Your task to perform on an android device: open chrome privacy settings Image 0: 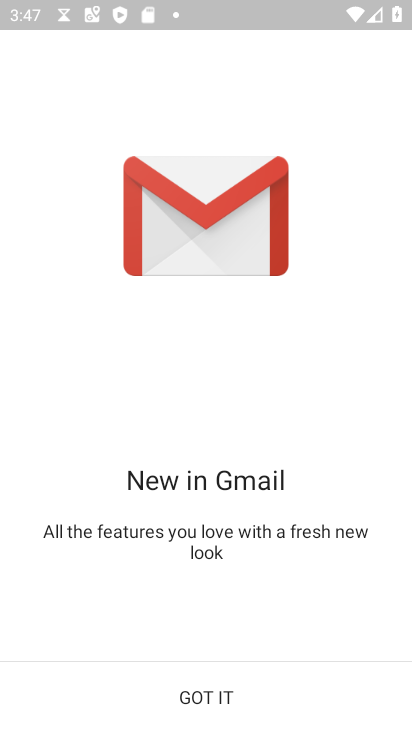
Step 0: click (211, 699)
Your task to perform on an android device: open chrome privacy settings Image 1: 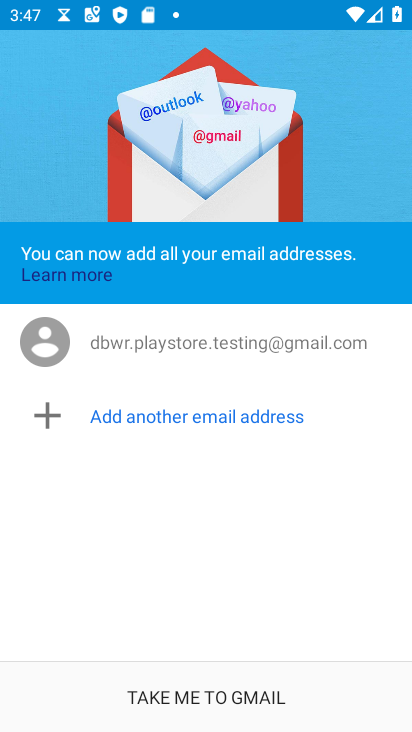
Step 1: press home button
Your task to perform on an android device: open chrome privacy settings Image 2: 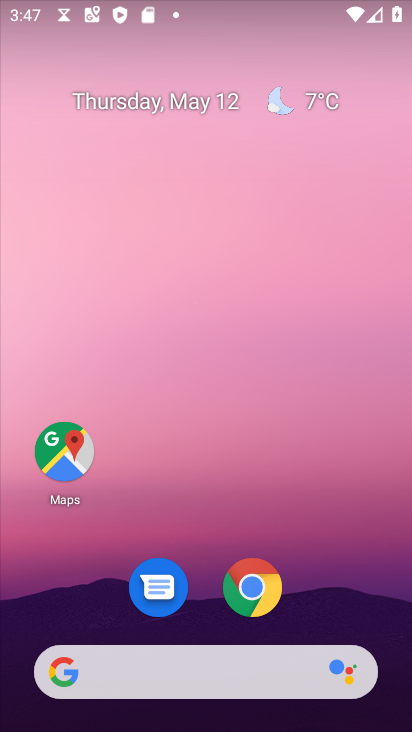
Step 2: click (263, 604)
Your task to perform on an android device: open chrome privacy settings Image 3: 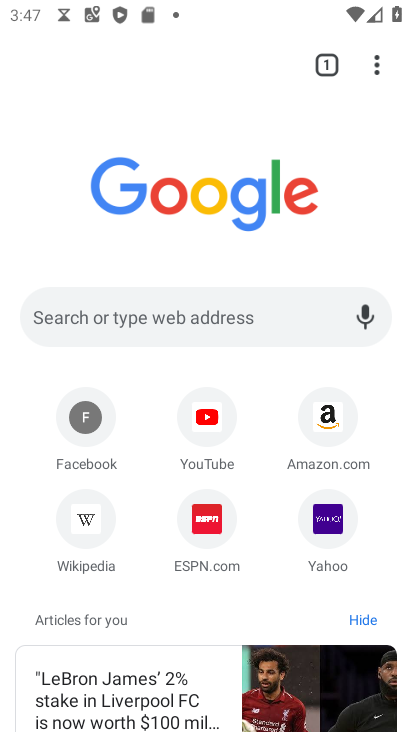
Step 3: drag from (374, 70) to (179, 554)
Your task to perform on an android device: open chrome privacy settings Image 4: 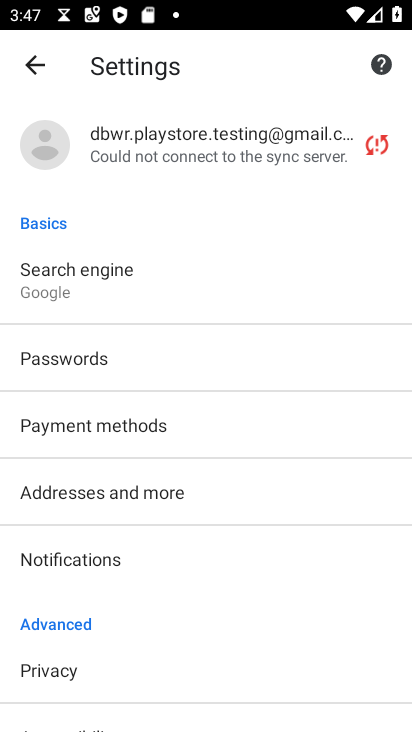
Step 4: click (45, 674)
Your task to perform on an android device: open chrome privacy settings Image 5: 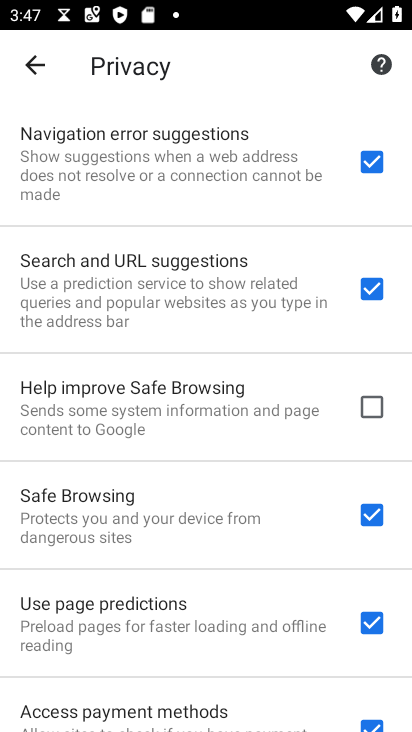
Step 5: task complete